Your task to perform on an android device: Open Google Maps and go to "Timeline" Image 0: 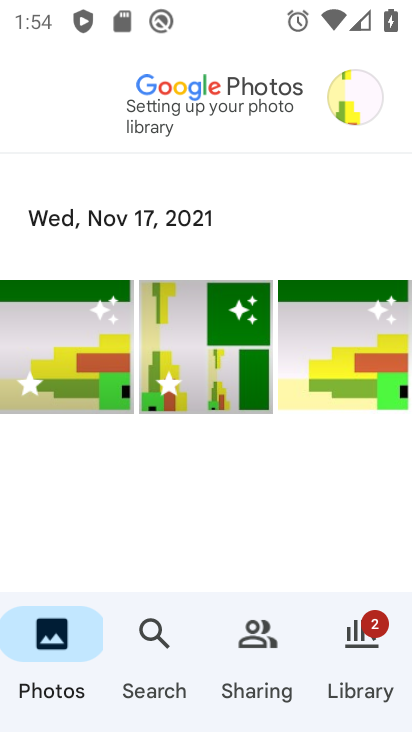
Step 0: press home button
Your task to perform on an android device: Open Google Maps and go to "Timeline" Image 1: 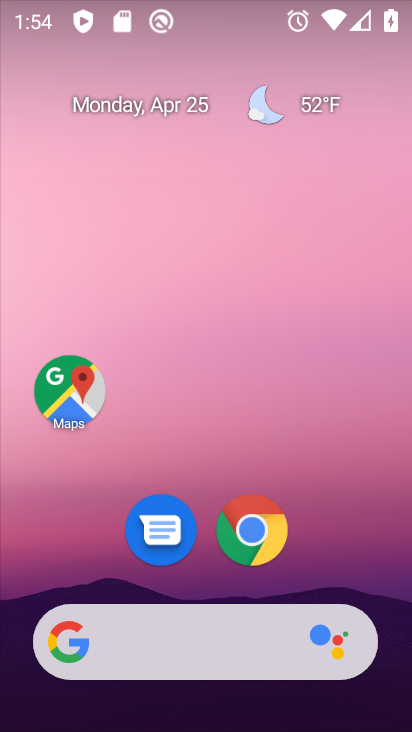
Step 1: drag from (347, 527) to (335, 113)
Your task to perform on an android device: Open Google Maps and go to "Timeline" Image 2: 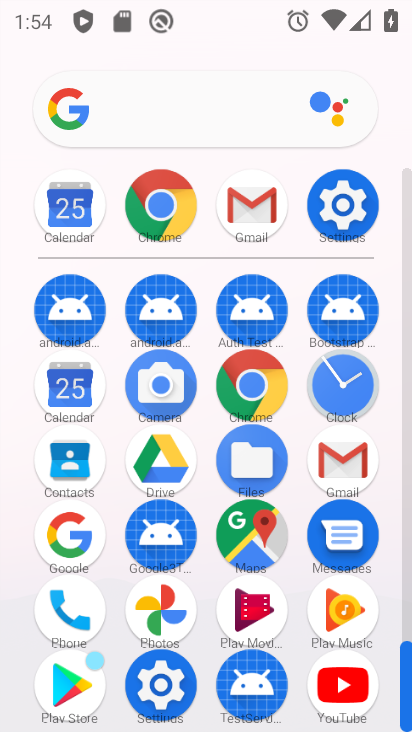
Step 2: click (265, 547)
Your task to perform on an android device: Open Google Maps and go to "Timeline" Image 3: 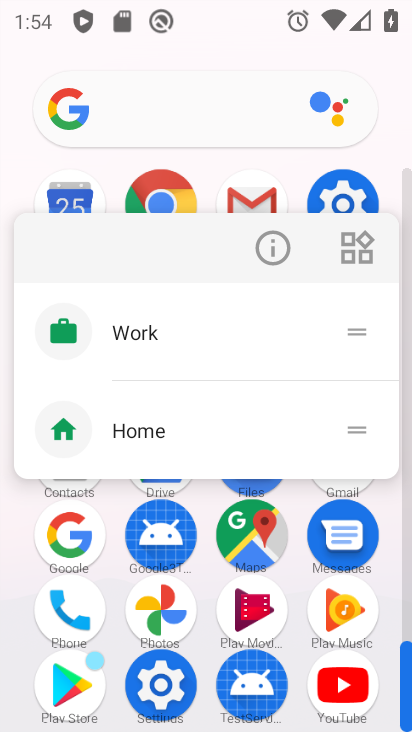
Step 3: click (245, 556)
Your task to perform on an android device: Open Google Maps and go to "Timeline" Image 4: 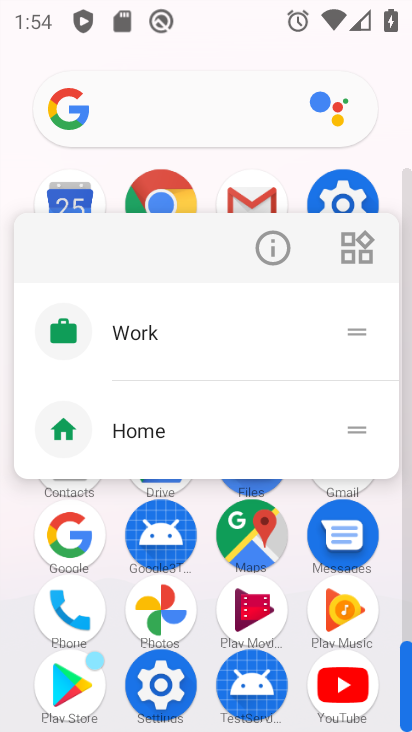
Step 4: click (250, 548)
Your task to perform on an android device: Open Google Maps and go to "Timeline" Image 5: 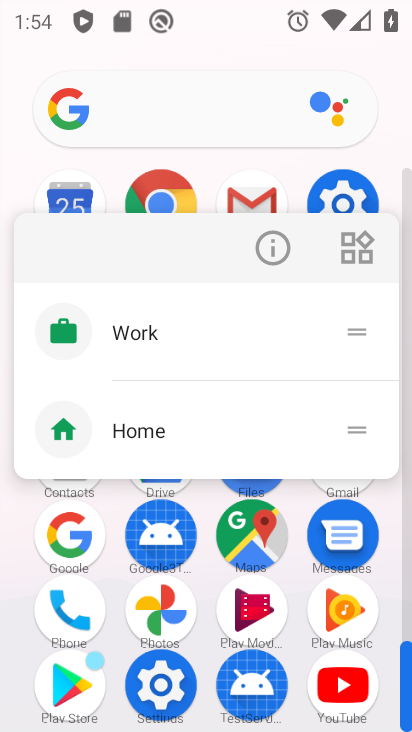
Step 5: click (242, 546)
Your task to perform on an android device: Open Google Maps and go to "Timeline" Image 6: 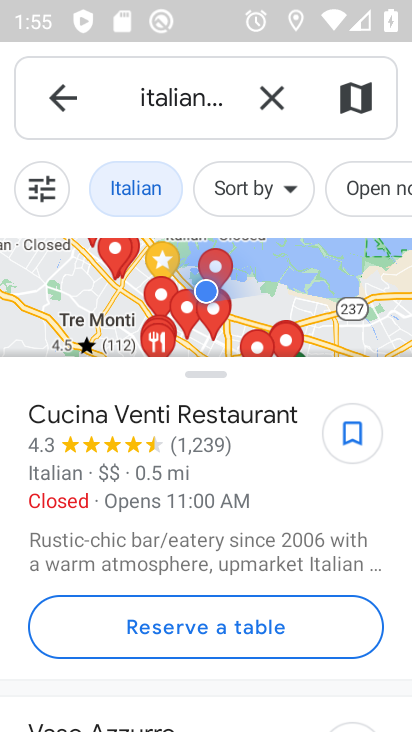
Step 6: click (53, 99)
Your task to perform on an android device: Open Google Maps and go to "Timeline" Image 7: 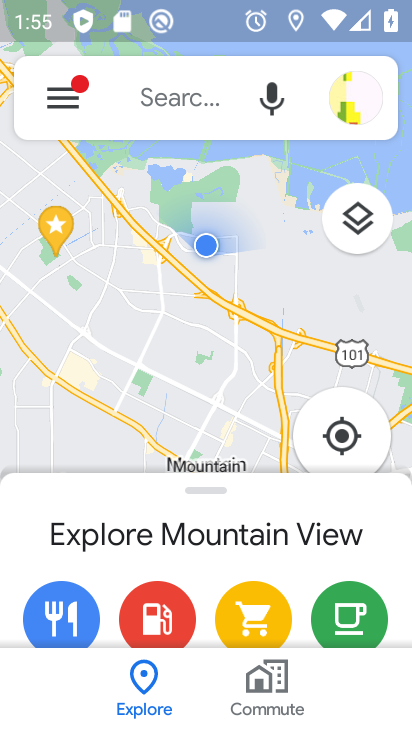
Step 7: click (54, 98)
Your task to perform on an android device: Open Google Maps and go to "Timeline" Image 8: 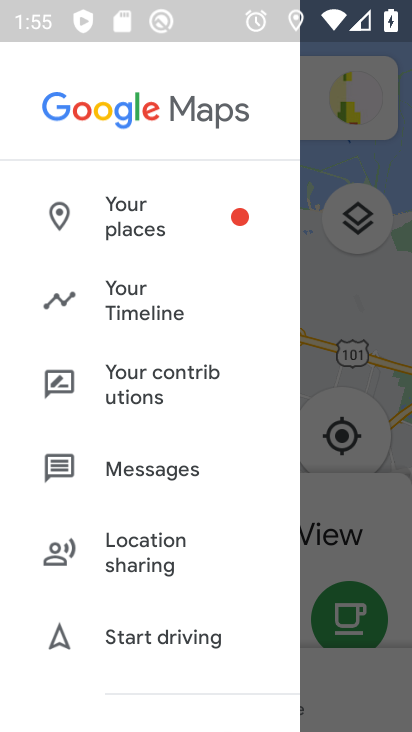
Step 8: click (151, 307)
Your task to perform on an android device: Open Google Maps and go to "Timeline" Image 9: 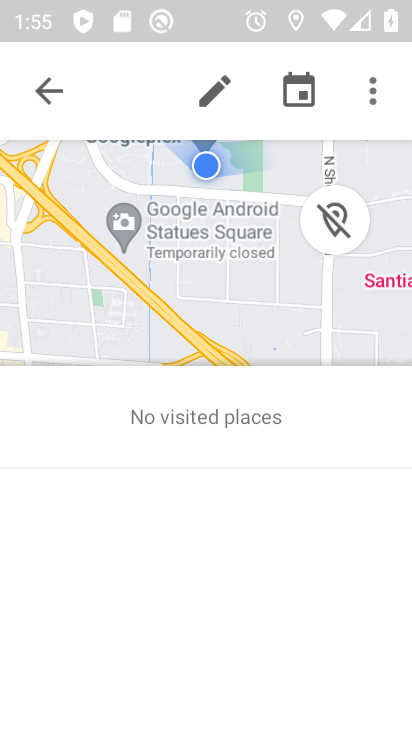
Step 9: task complete